Your task to perform on an android device: turn off notifications settings in the gmail app Image 0: 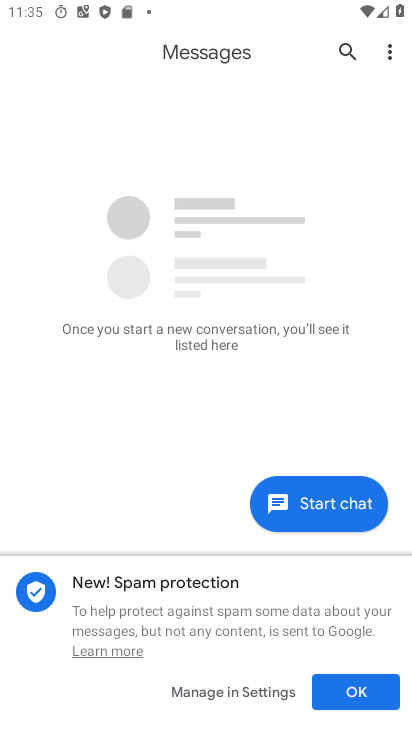
Step 0: press home button
Your task to perform on an android device: turn off notifications settings in the gmail app Image 1: 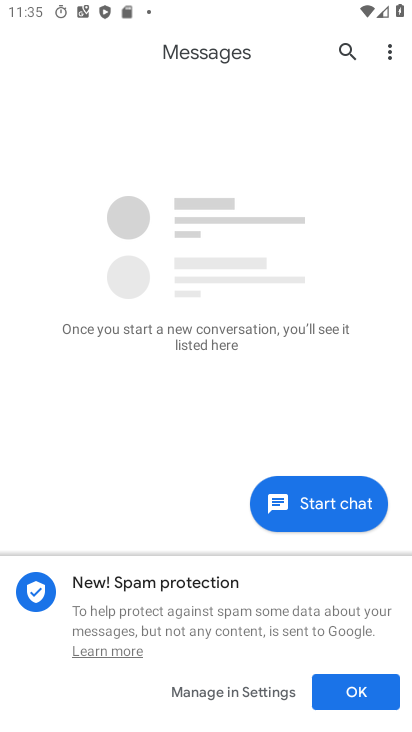
Step 1: press home button
Your task to perform on an android device: turn off notifications settings in the gmail app Image 2: 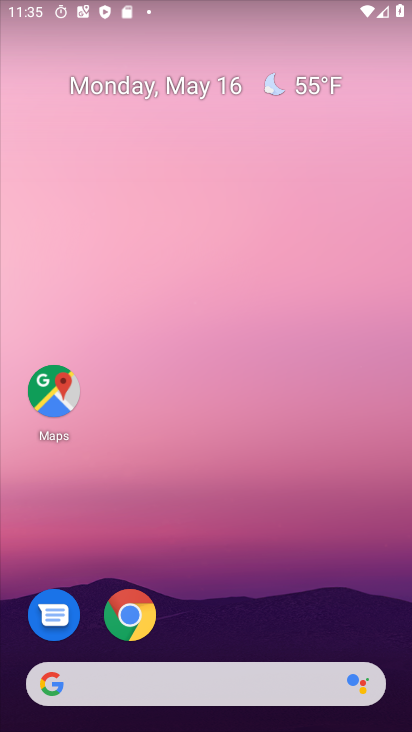
Step 2: drag from (284, 614) to (201, 109)
Your task to perform on an android device: turn off notifications settings in the gmail app Image 3: 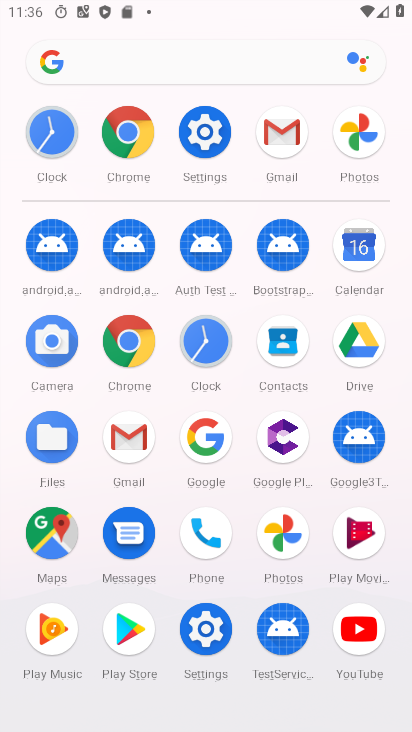
Step 3: drag from (186, 521) to (150, 134)
Your task to perform on an android device: turn off notifications settings in the gmail app Image 4: 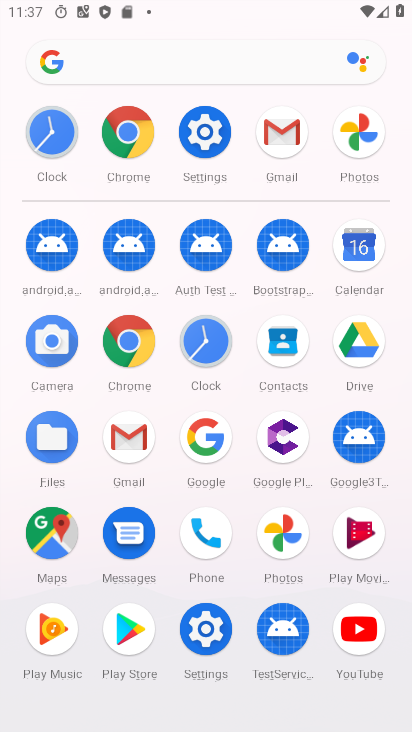
Step 4: click (295, 130)
Your task to perform on an android device: turn off notifications settings in the gmail app Image 5: 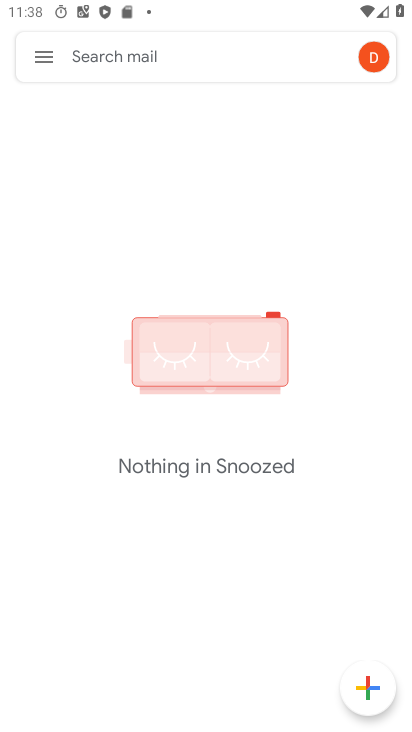
Step 5: press home button
Your task to perform on an android device: turn off notifications settings in the gmail app Image 6: 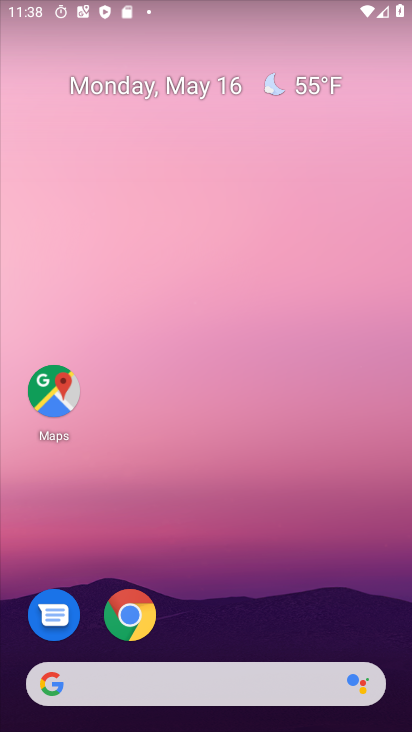
Step 6: drag from (304, 576) to (262, 123)
Your task to perform on an android device: turn off notifications settings in the gmail app Image 7: 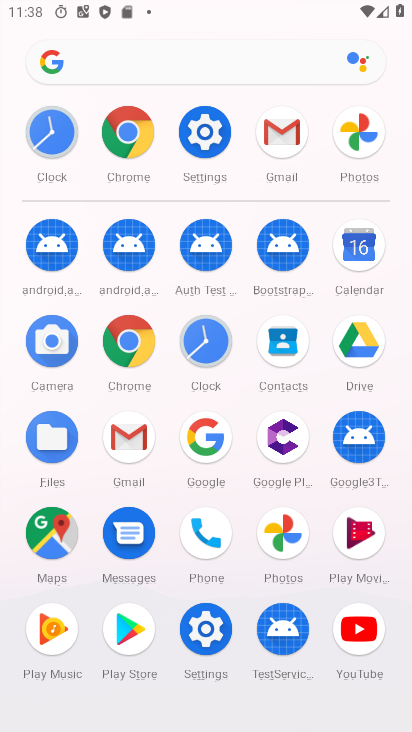
Step 7: click (283, 136)
Your task to perform on an android device: turn off notifications settings in the gmail app Image 8: 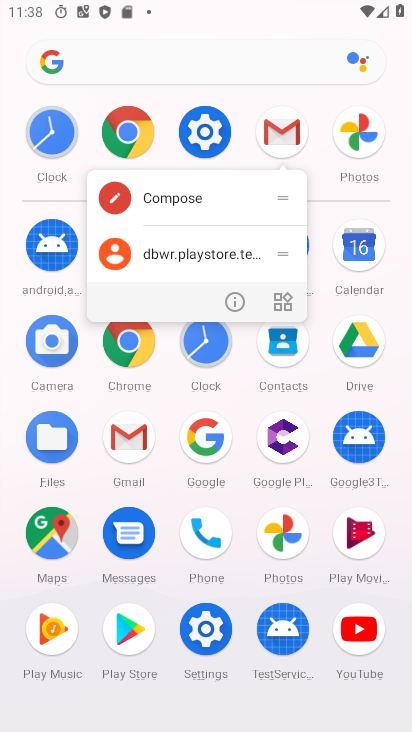
Step 8: click (241, 301)
Your task to perform on an android device: turn off notifications settings in the gmail app Image 9: 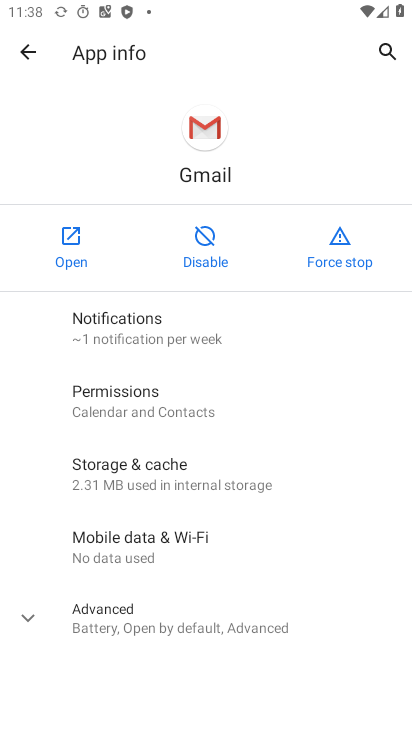
Step 9: click (142, 315)
Your task to perform on an android device: turn off notifications settings in the gmail app Image 10: 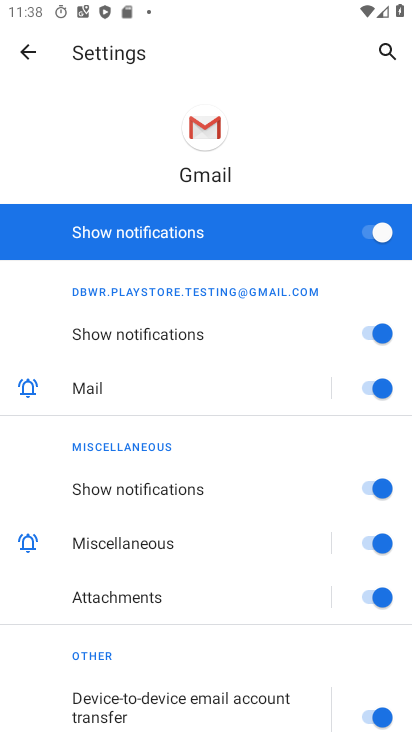
Step 10: click (371, 238)
Your task to perform on an android device: turn off notifications settings in the gmail app Image 11: 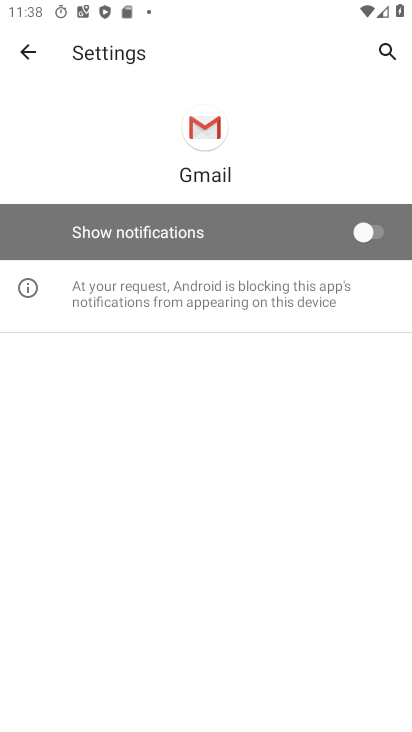
Step 11: task complete